Your task to perform on an android device: Search for seafood restaurants on Google Maps Image 0: 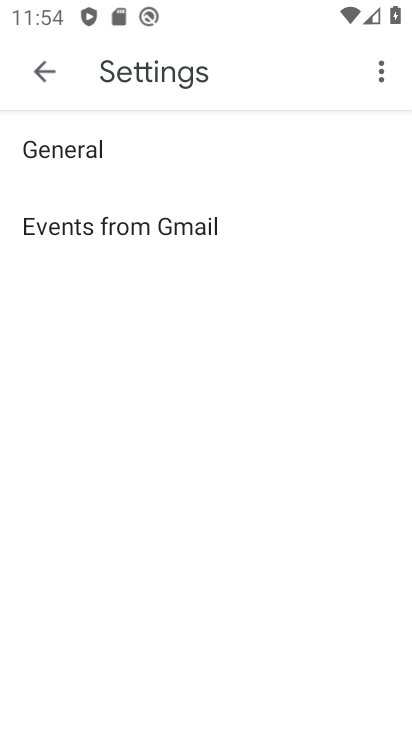
Step 0: press home button
Your task to perform on an android device: Search for seafood restaurants on Google Maps Image 1: 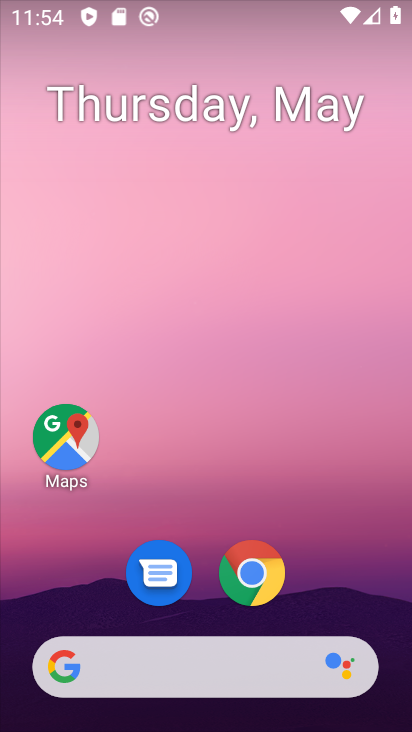
Step 1: drag from (198, 726) to (144, 189)
Your task to perform on an android device: Search for seafood restaurants on Google Maps Image 2: 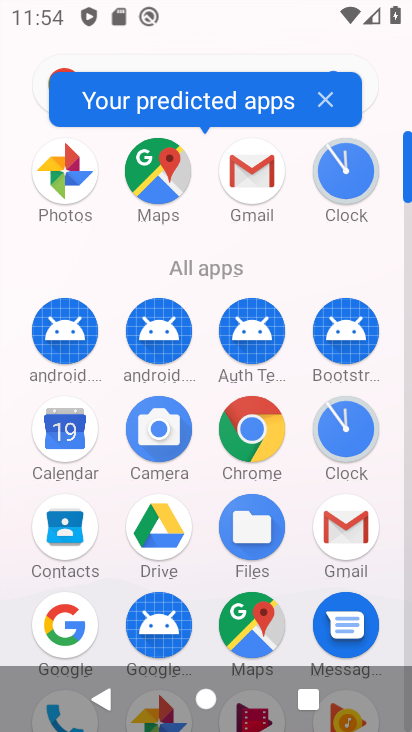
Step 2: click (251, 631)
Your task to perform on an android device: Search for seafood restaurants on Google Maps Image 3: 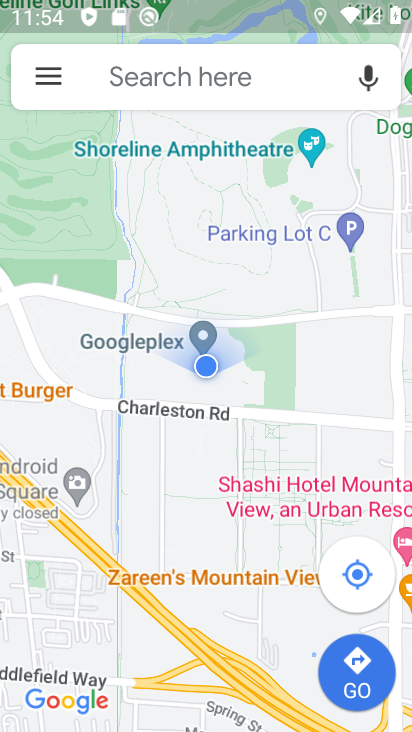
Step 3: click (173, 86)
Your task to perform on an android device: Search for seafood restaurants on Google Maps Image 4: 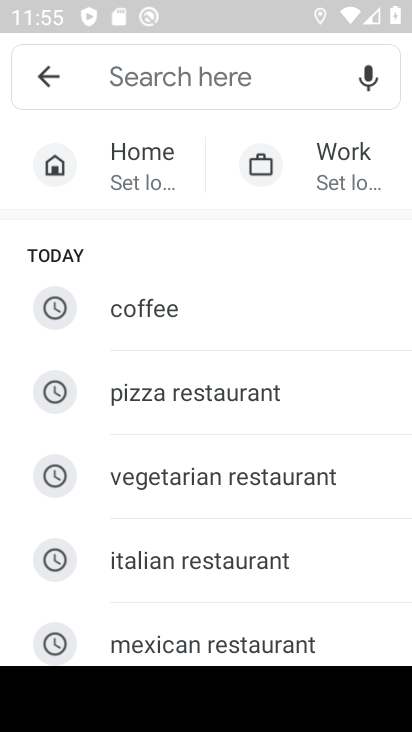
Step 4: type "seafood restaurants"
Your task to perform on an android device: Search for seafood restaurants on Google Maps Image 5: 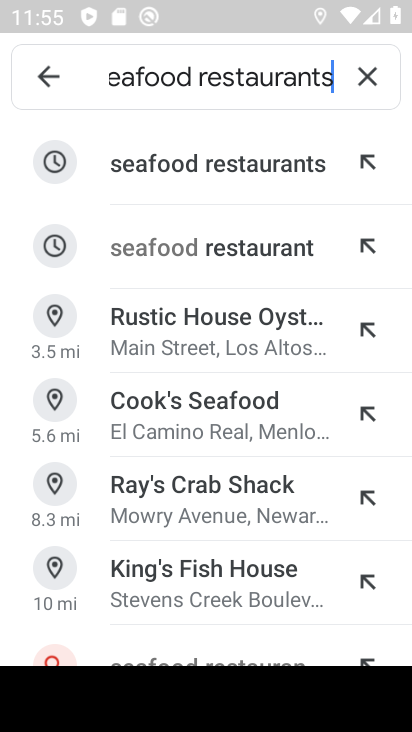
Step 5: click (173, 163)
Your task to perform on an android device: Search for seafood restaurants on Google Maps Image 6: 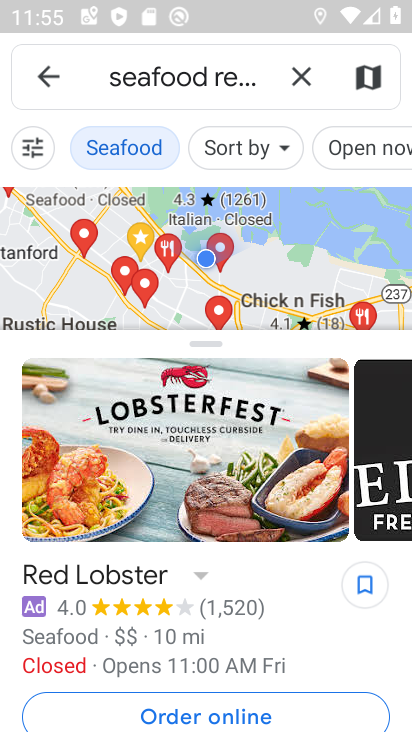
Step 6: task complete